Your task to perform on an android device: toggle improve location accuracy Image 0: 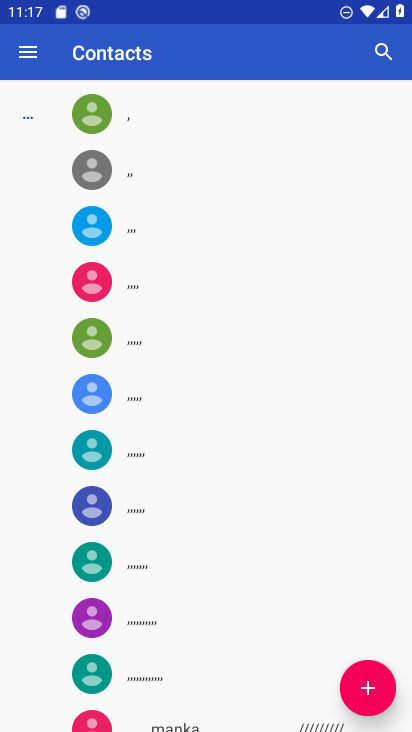
Step 0: press home button
Your task to perform on an android device: toggle improve location accuracy Image 1: 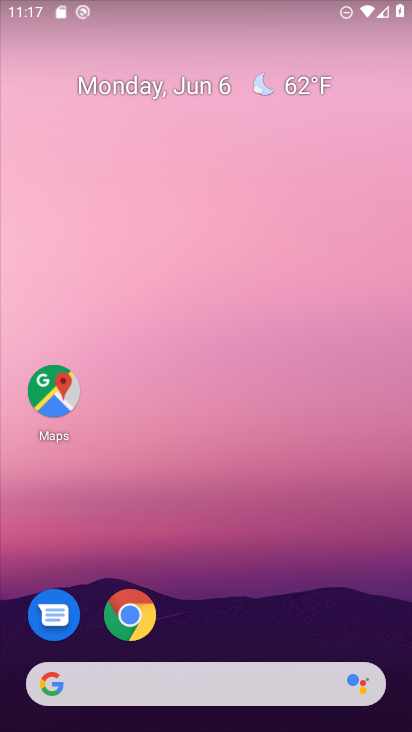
Step 1: drag from (217, 666) to (185, 50)
Your task to perform on an android device: toggle improve location accuracy Image 2: 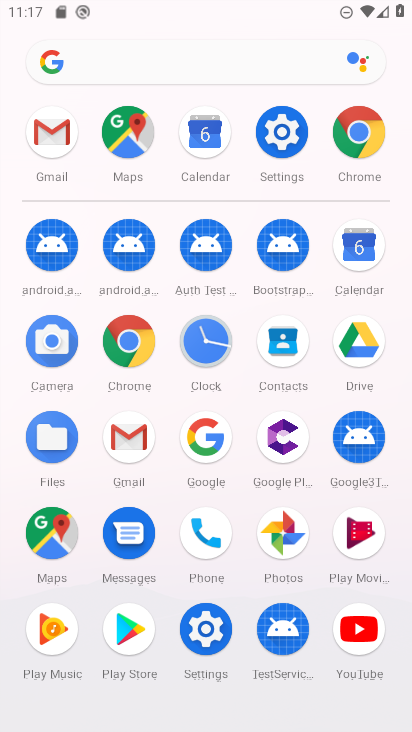
Step 2: click (286, 139)
Your task to perform on an android device: toggle improve location accuracy Image 3: 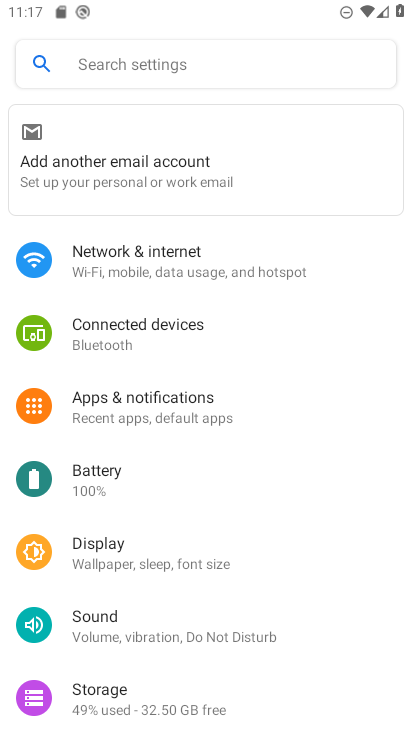
Step 3: drag from (157, 627) to (162, 128)
Your task to perform on an android device: toggle improve location accuracy Image 4: 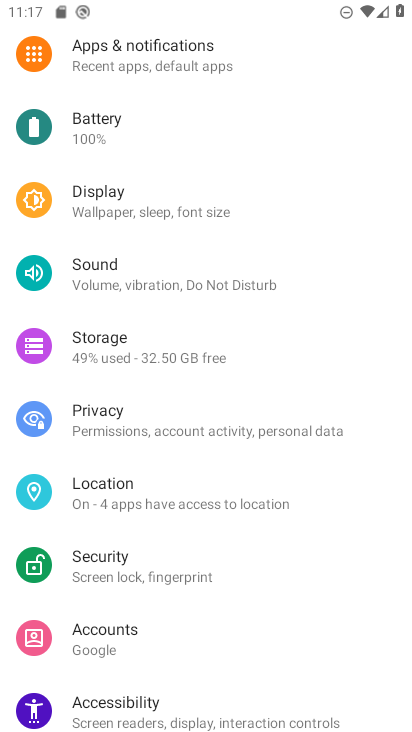
Step 4: click (157, 487)
Your task to perform on an android device: toggle improve location accuracy Image 5: 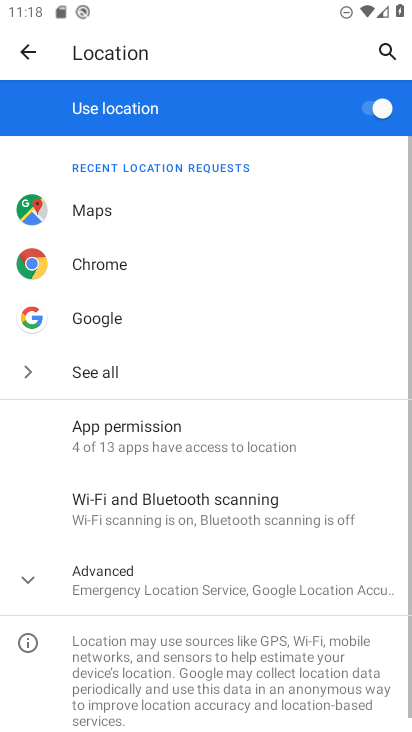
Step 5: click (101, 562)
Your task to perform on an android device: toggle improve location accuracy Image 6: 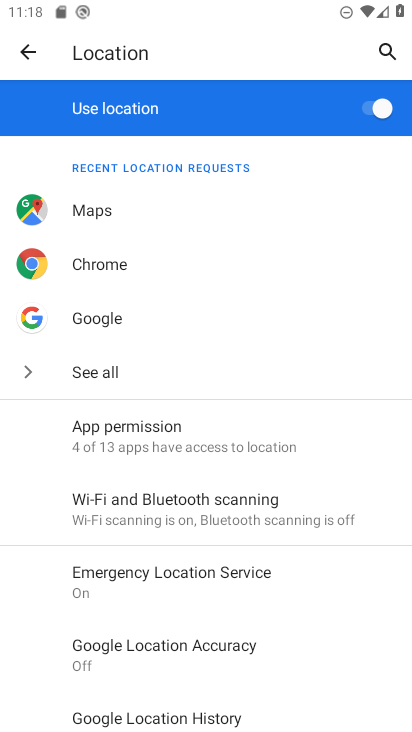
Step 6: click (207, 643)
Your task to perform on an android device: toggle improve location accuracy Image 7: 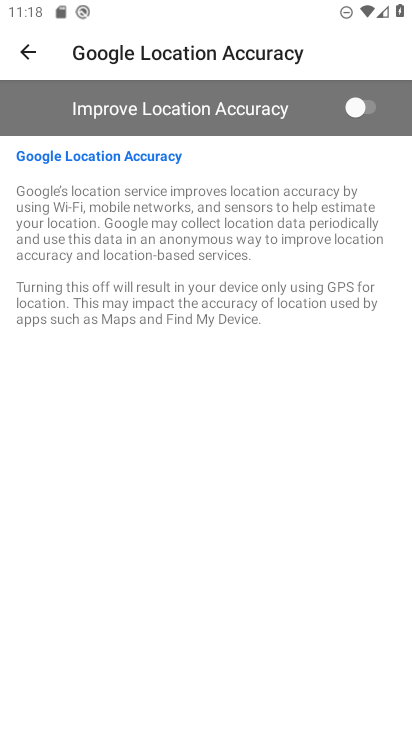
Step 7: click (365, 114)
Your task to perform on an android device: toggle improve location accuracy Image 8: 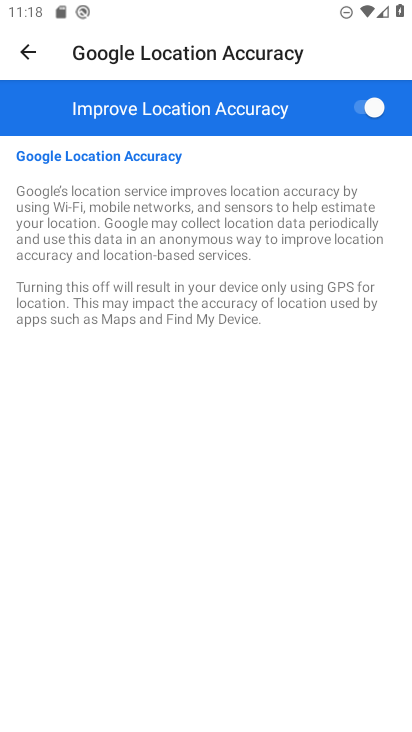
Step 8: task complete